Your task to perform on an android device: Open sound settings Image 0: 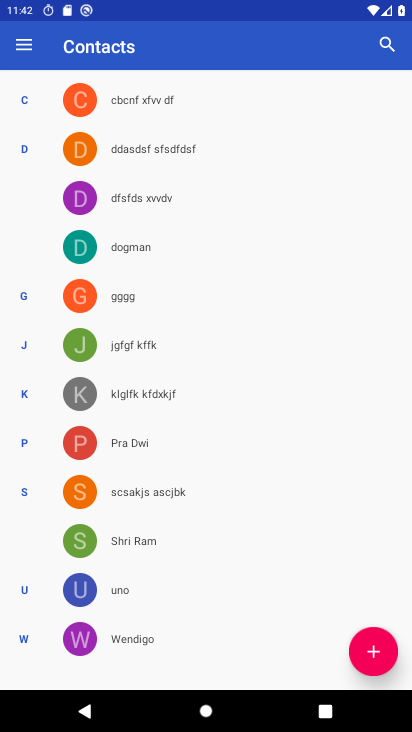
Step 0: press home button
Your task to perform on an android device: Open sound settings Image 1: 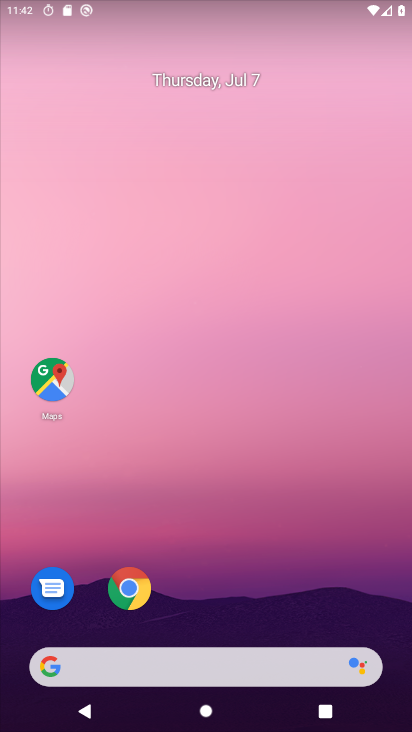
Step 1: drag from (130, 648) to (282, 146)
Your task to perform on an android device: Open sound settings Image 2: 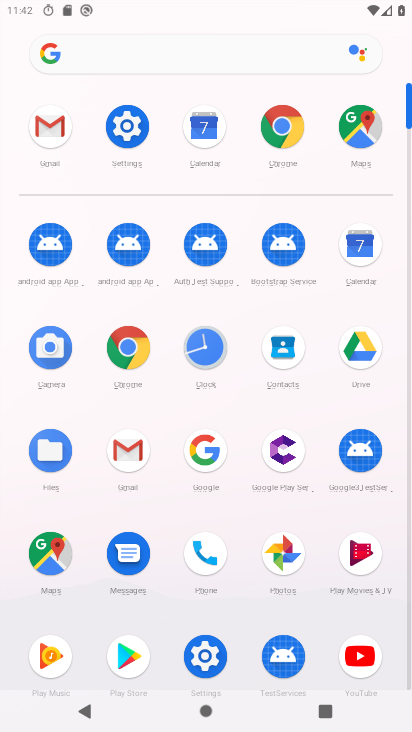
Step 2: click (126, 127)
Your task to perform on an android device: Open sound settings Image 3: 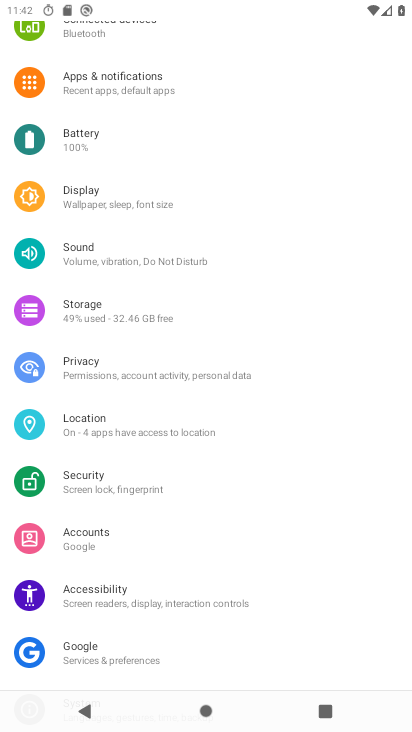
Step 3: click (86, 255)
Your task to perform on an android device: Open sound settings Image 4: 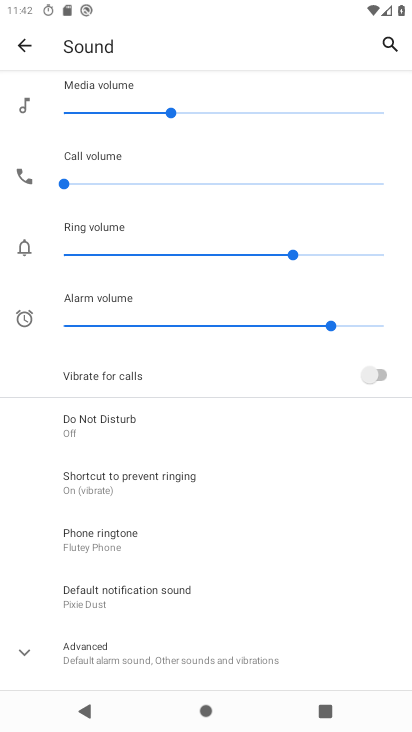
Step 4: task complete